Your task to perform on an android device: see creations saved in the google photos Image 0: 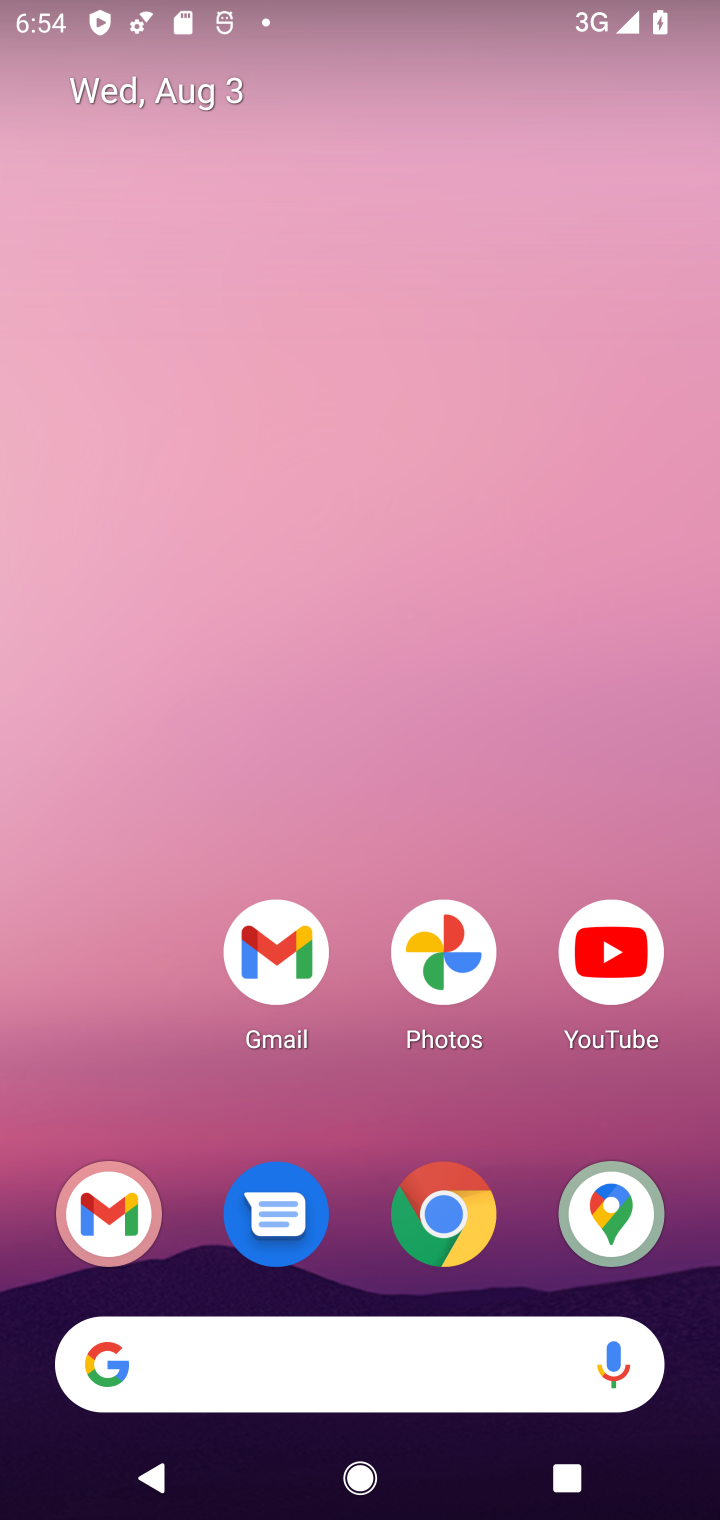
Step 0: click (441, 972)
Your task to perform on an android device: see creations saved in the google photos Image 1: 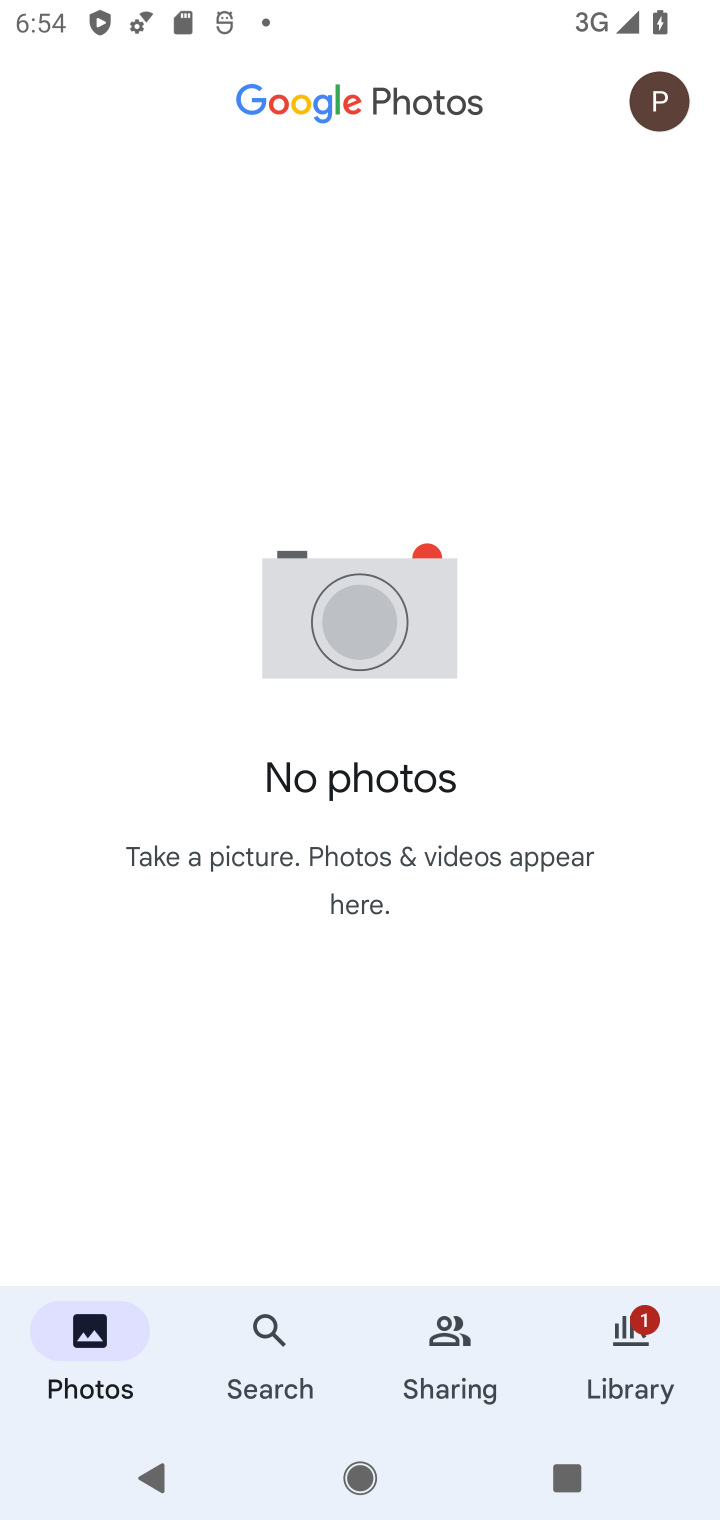
Step 1: task complete